Your task to perform on an android device: Open the web browser Image 0: 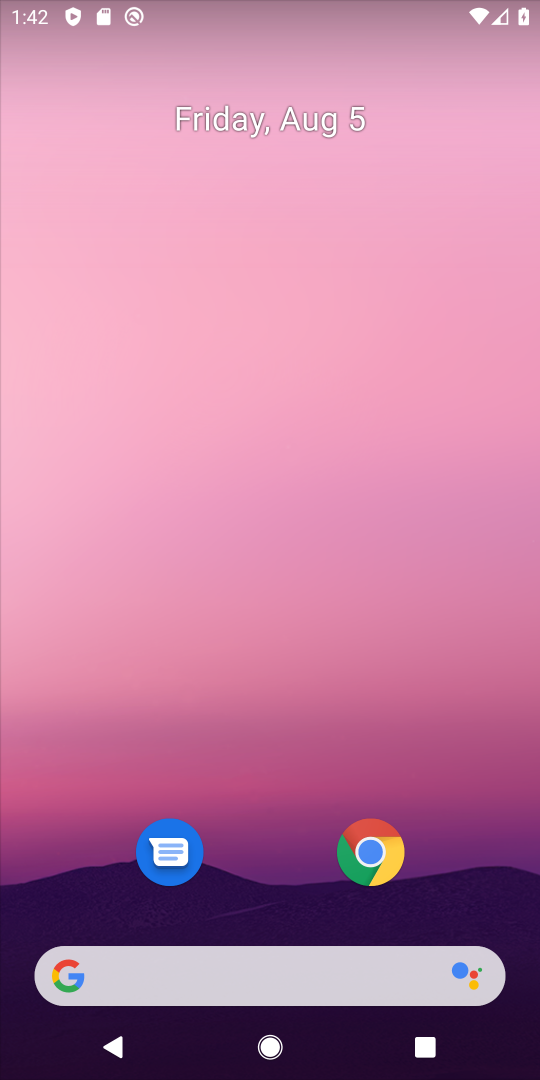
Step 0: click (372, 849)
Your task to perform on an android device: Open the web browser Image 1: 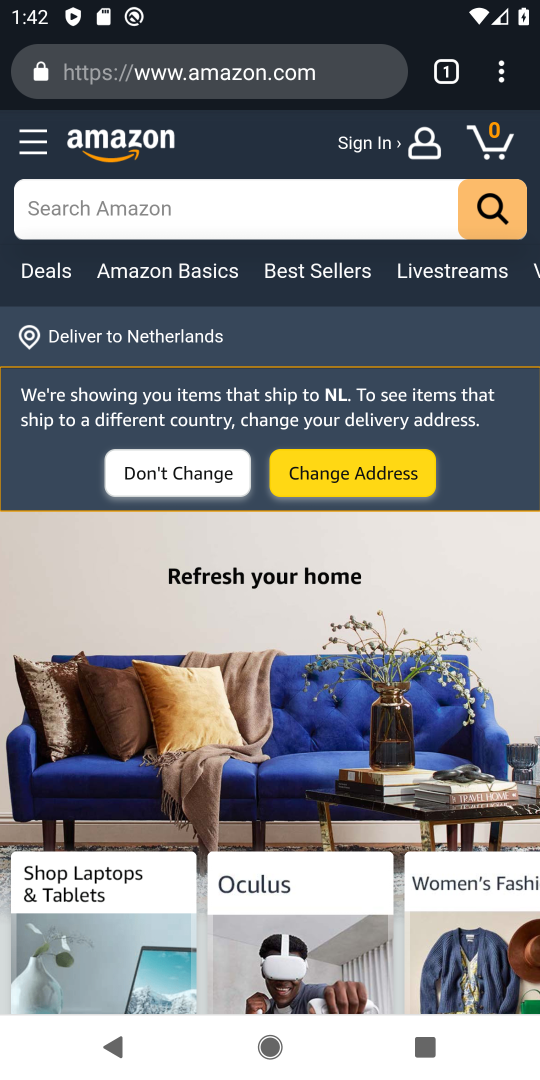
Step 1: task complete